Your task to perform on an android device: Open sound settings Image 0: 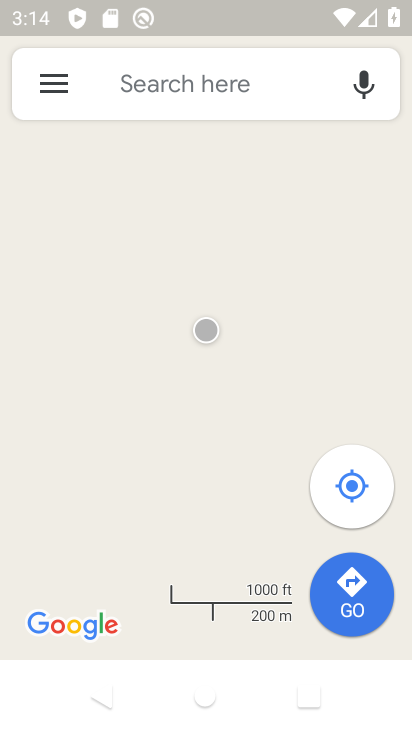
Step 0: press home button
Your task to perform on an android device: Open sound settings Image 1: 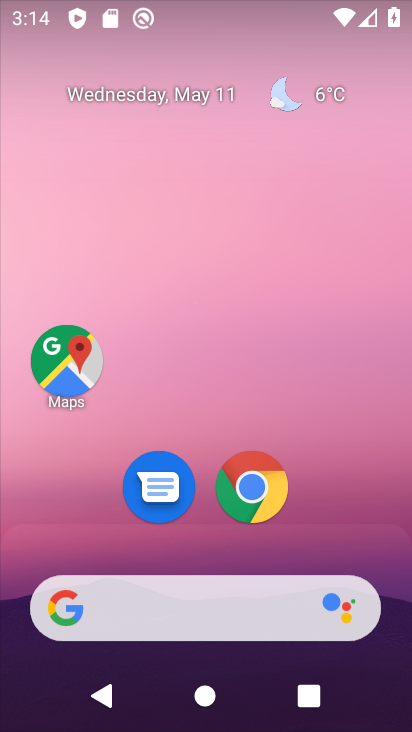
Step 1: drag from (136, 580) to (271, 173)
Your task to perform on an android device: Open sound settings Image 2: 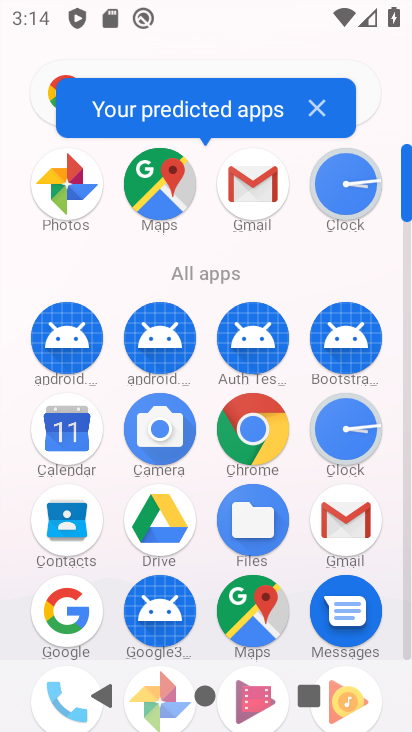
Step 2: drag from (183, 643) to (257, 409)
Your task to perform on an android device: Open sound settings Image 3: 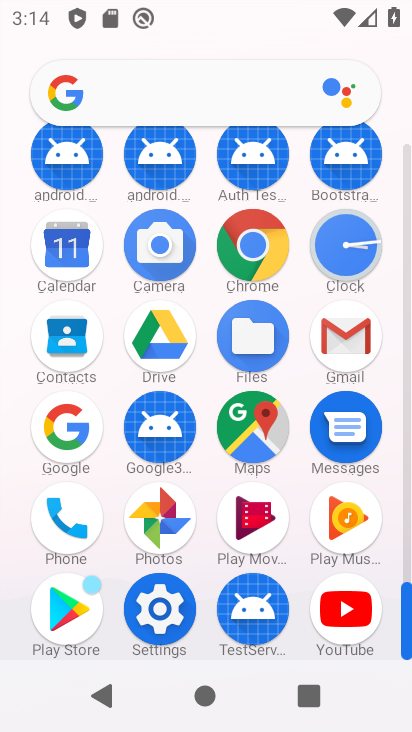
Step 3: click (169, 633)
Your task to perform on an android device: Open sound settings Image 4: 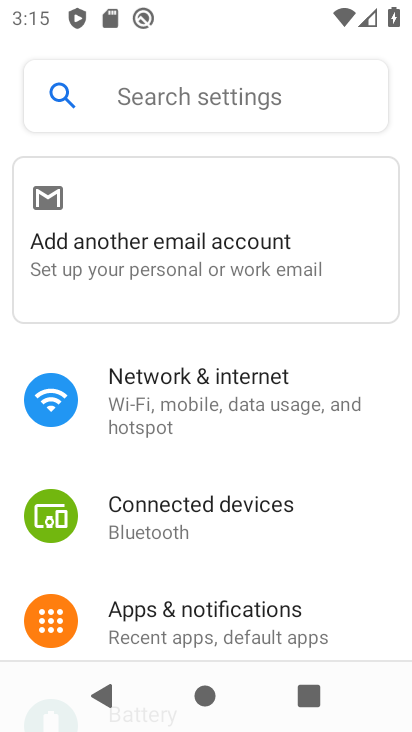
Step 4: drag from (191, 617) to (296, 232)
Your task to perform on an android device: Open sound settings Image 5: 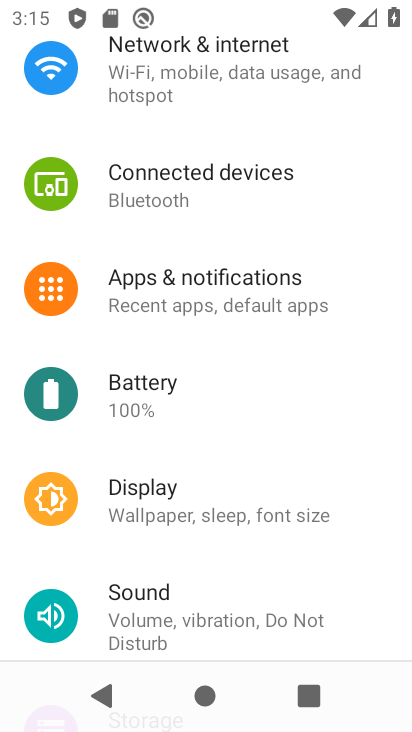
Step 5: click (215, 610)
Your task to perform on an android device: Open sound settings Image 6: 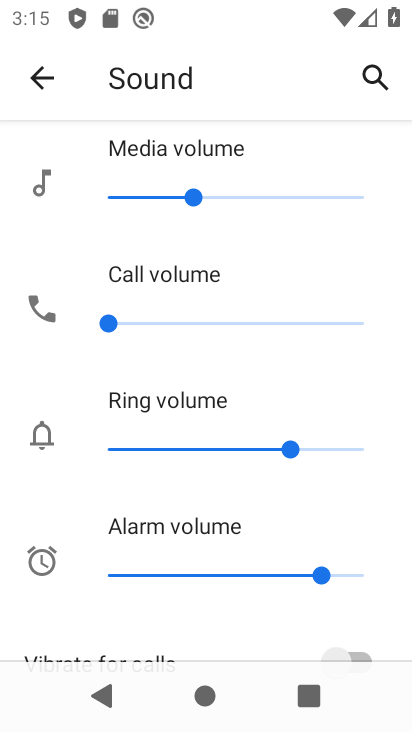
Step 6: task complete